Your task to perform on an android device: Go to accessibility settings Image 0: 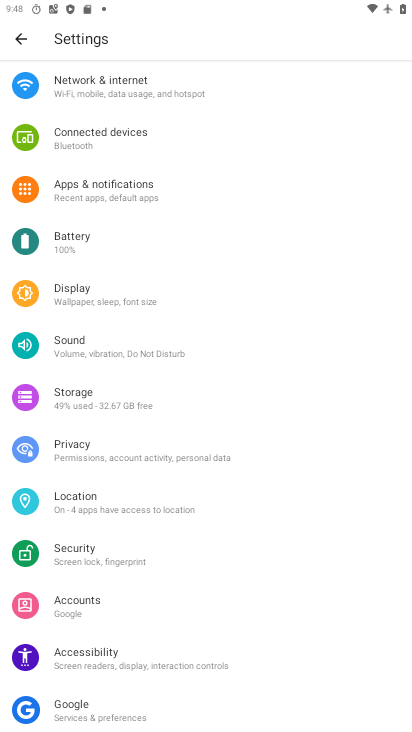
Step 0: click (138, 650)
Your task to perform on an android device: Go to accessibility settings Image 1: 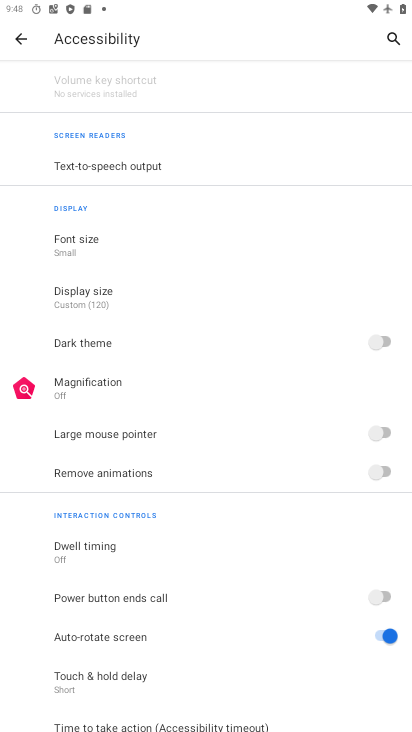
Step 1: task complete